Your task to perform on an android device: stop showing notifications on the lock screen Image 0: 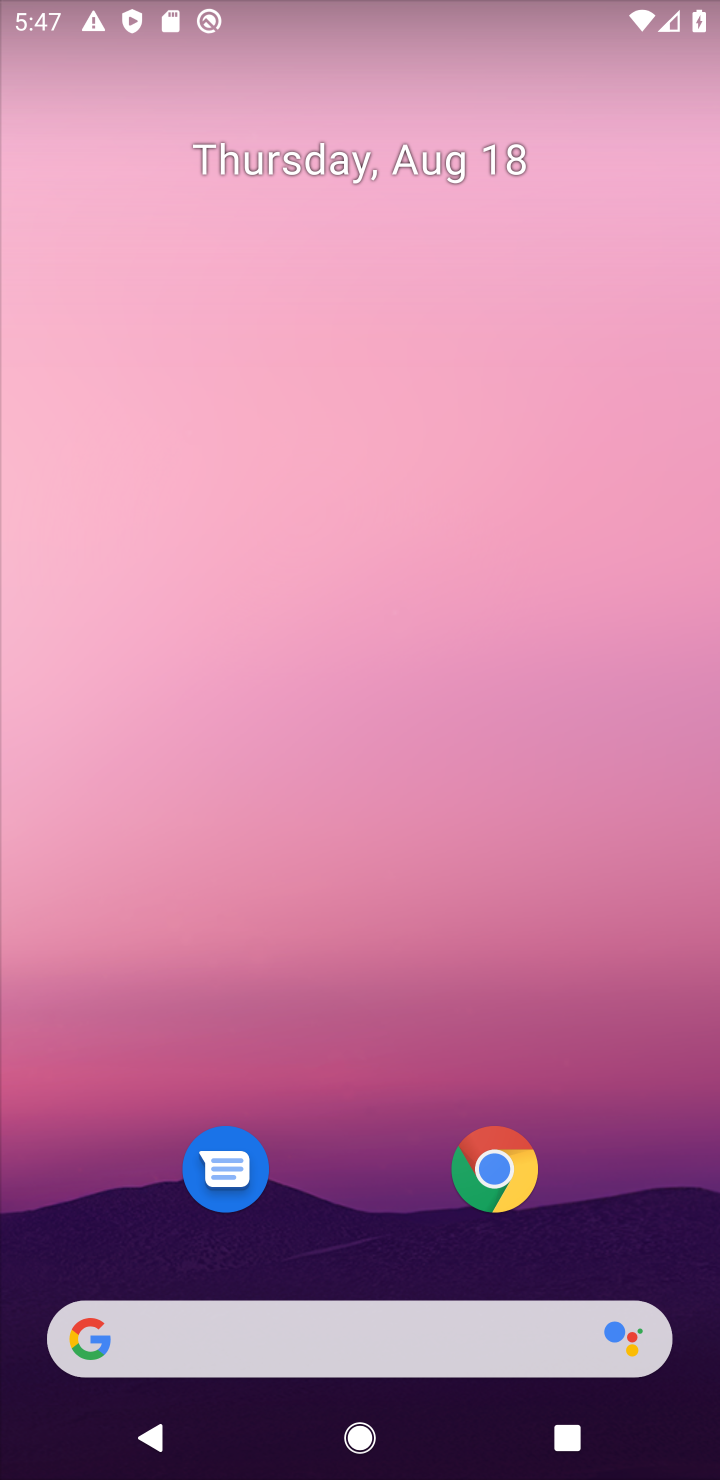
Step 0: press home button
Your task to perform on an android device: stop showing notifications on the lock screen Image 1: 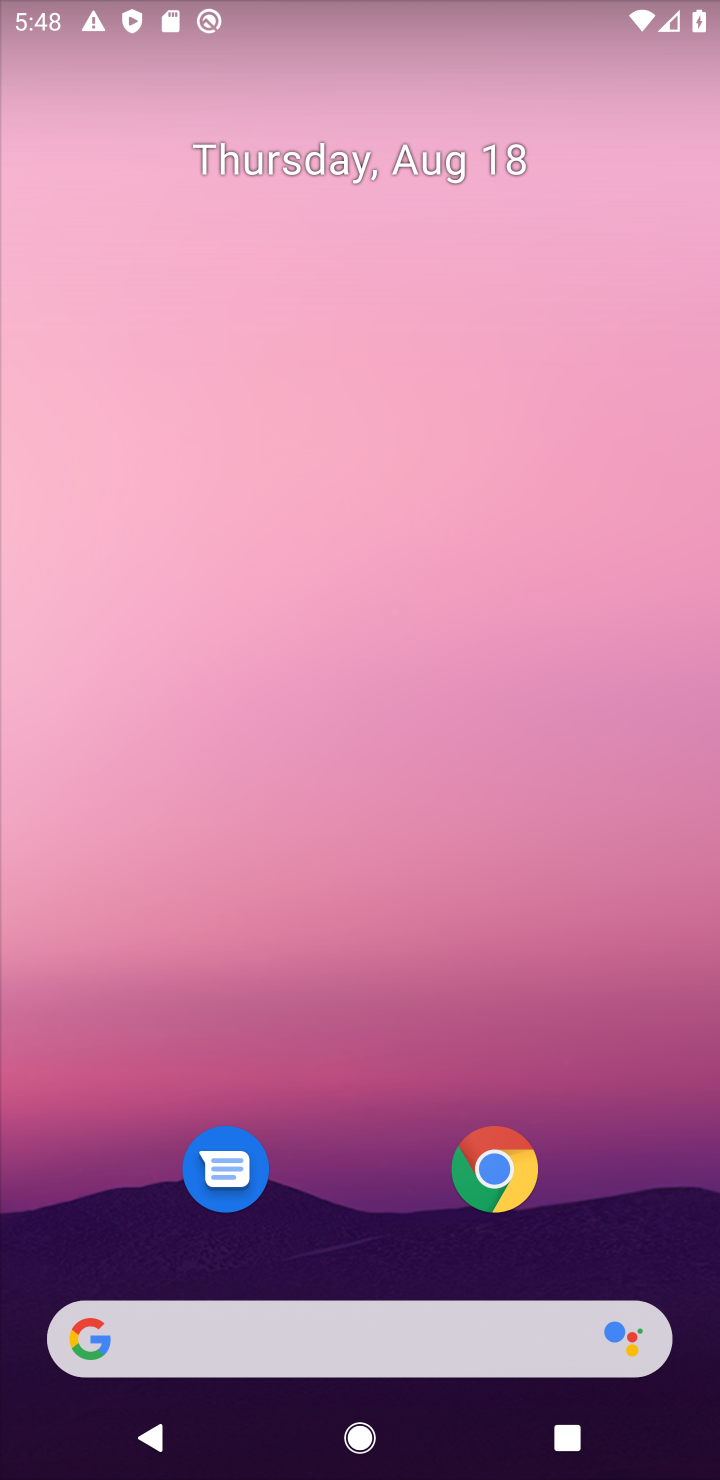
Step 1: drag from (364, 1153) to (335, 146)
Your task to perform on an android device: stop showing notifications on the lock screen Image 2: 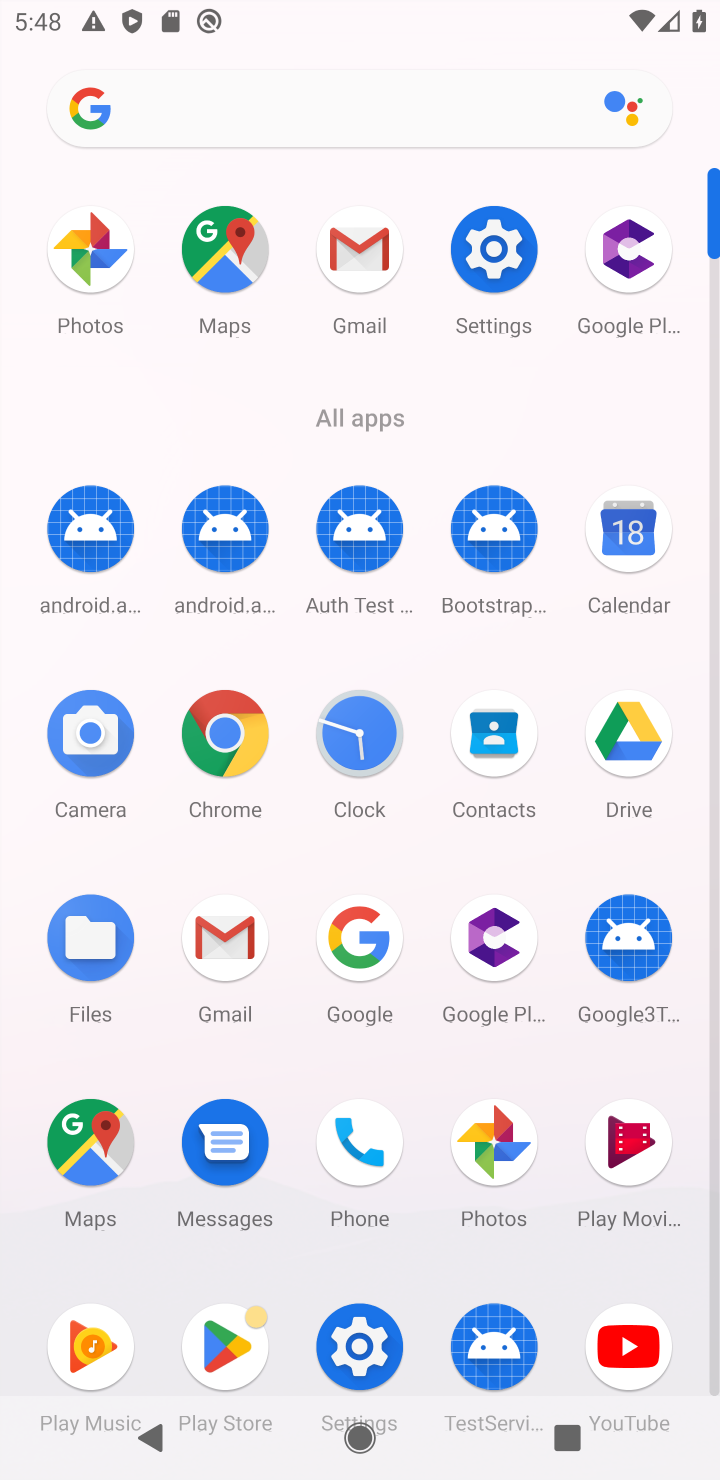
Step 2: click (484, 261)
Your task to perform on an android device: stop showing notifications on the lock screen Image 3: 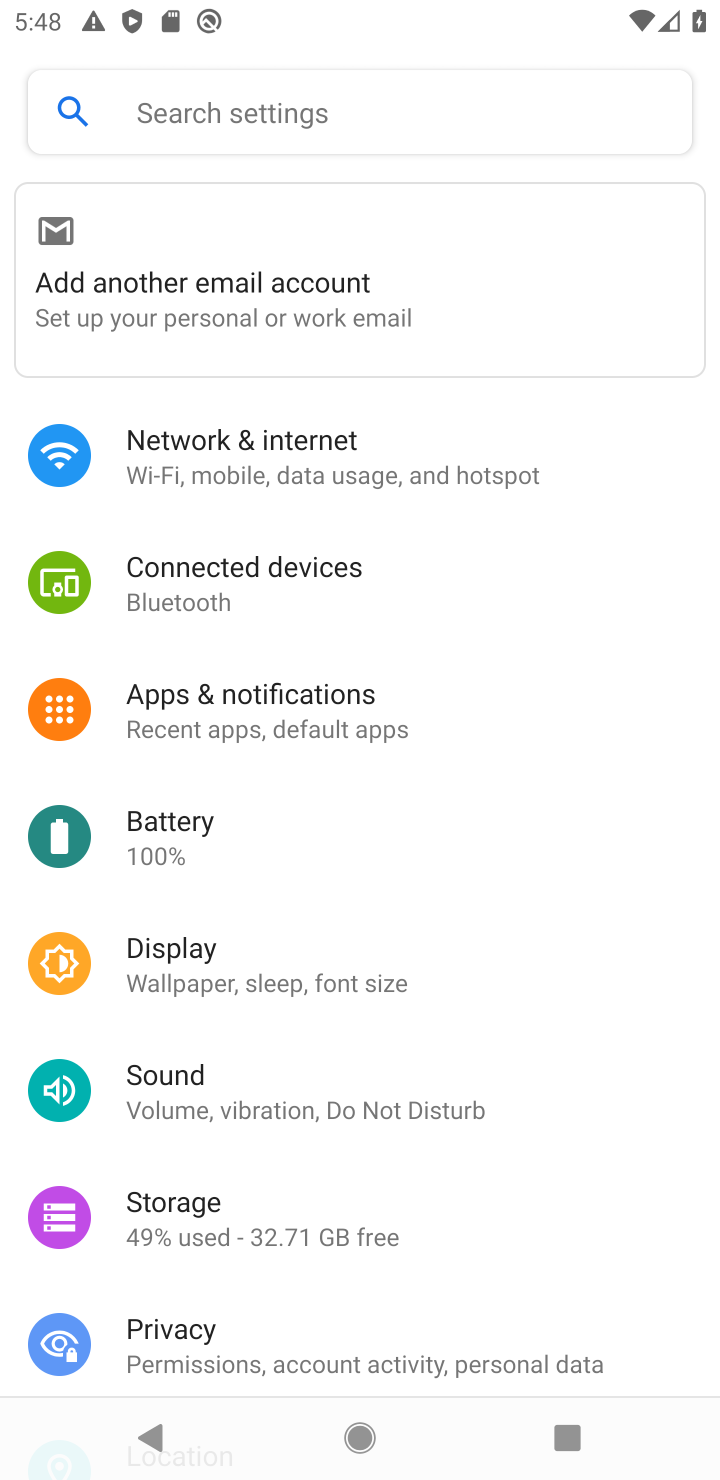
Step 3: click (291, 704)
Your task to perform on an android device: stop showing notifications on the lock screen Image 4: 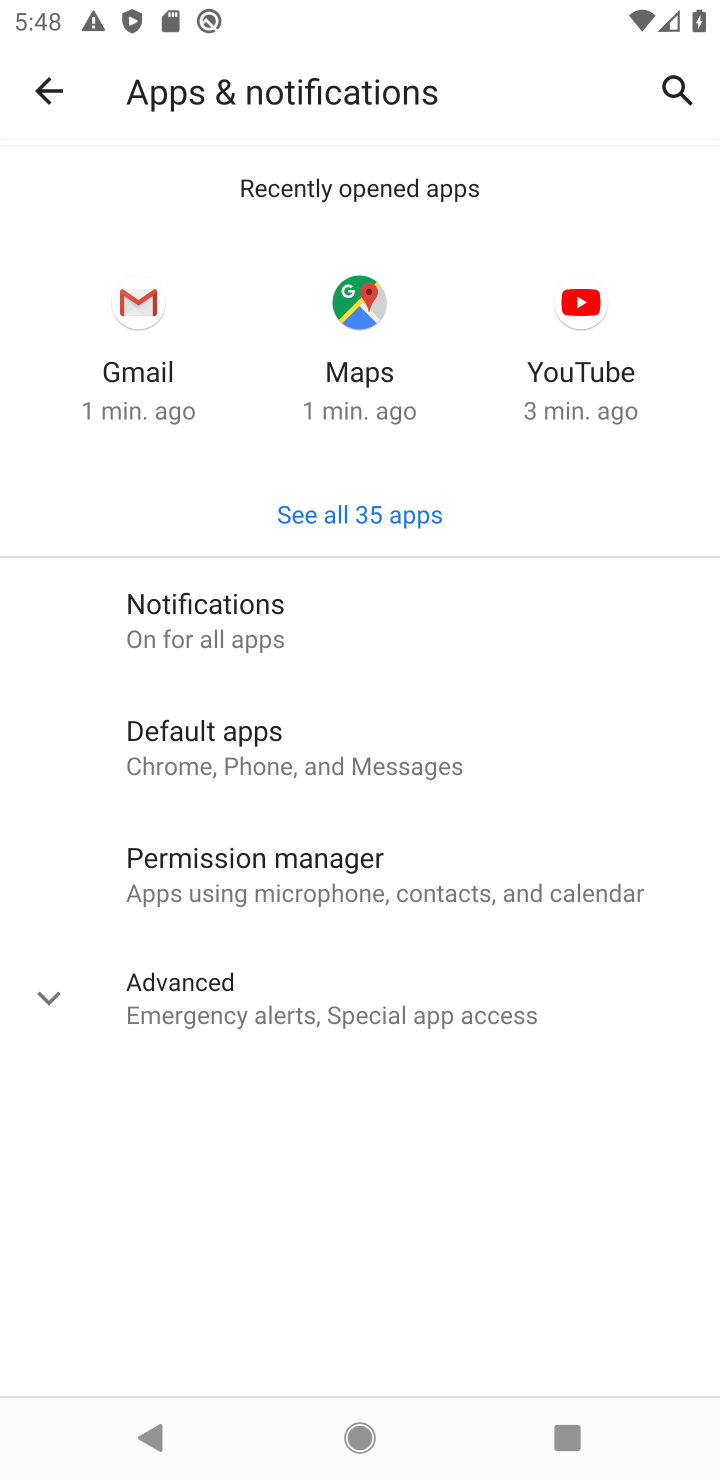
Step 4: click (221, 627)
Your task to perform on an android device: stop showing notifications on the lock screen Image 5: 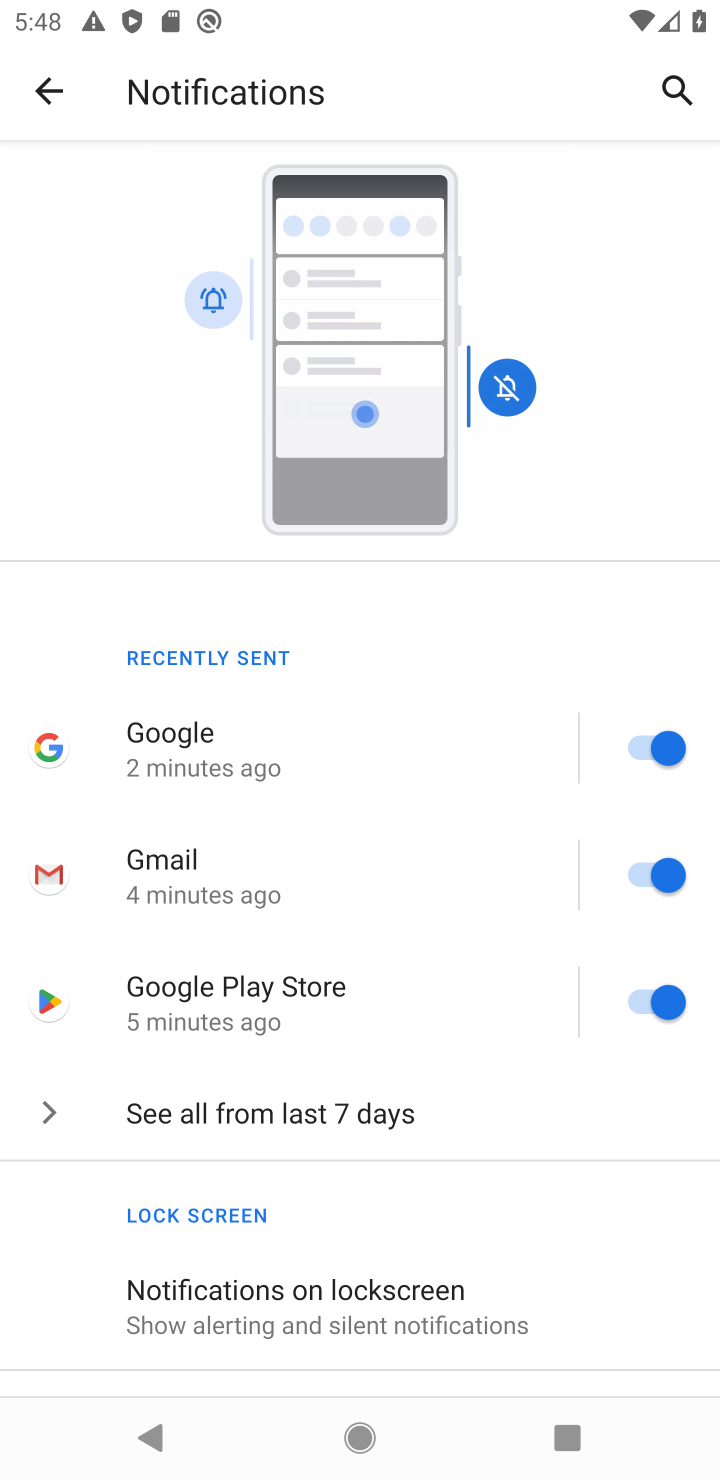
Step 5: drag from (530, 949) to (522, 817)
Your task to perform on an android device: stop showing notifications on the lock screen Image 6: 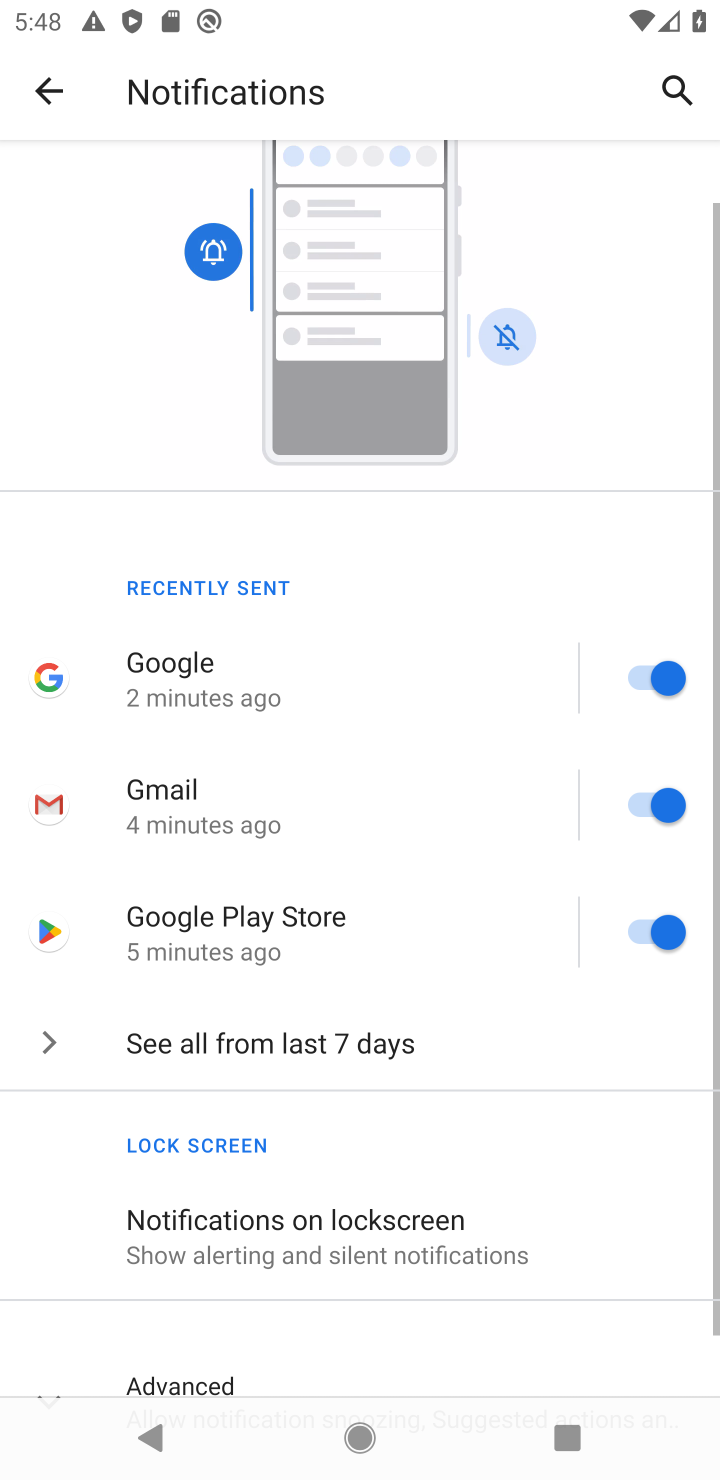
Step 6: click (269, 1248)
Your task to perform on an android device: stop showing notifications on the lock screen Image 7: 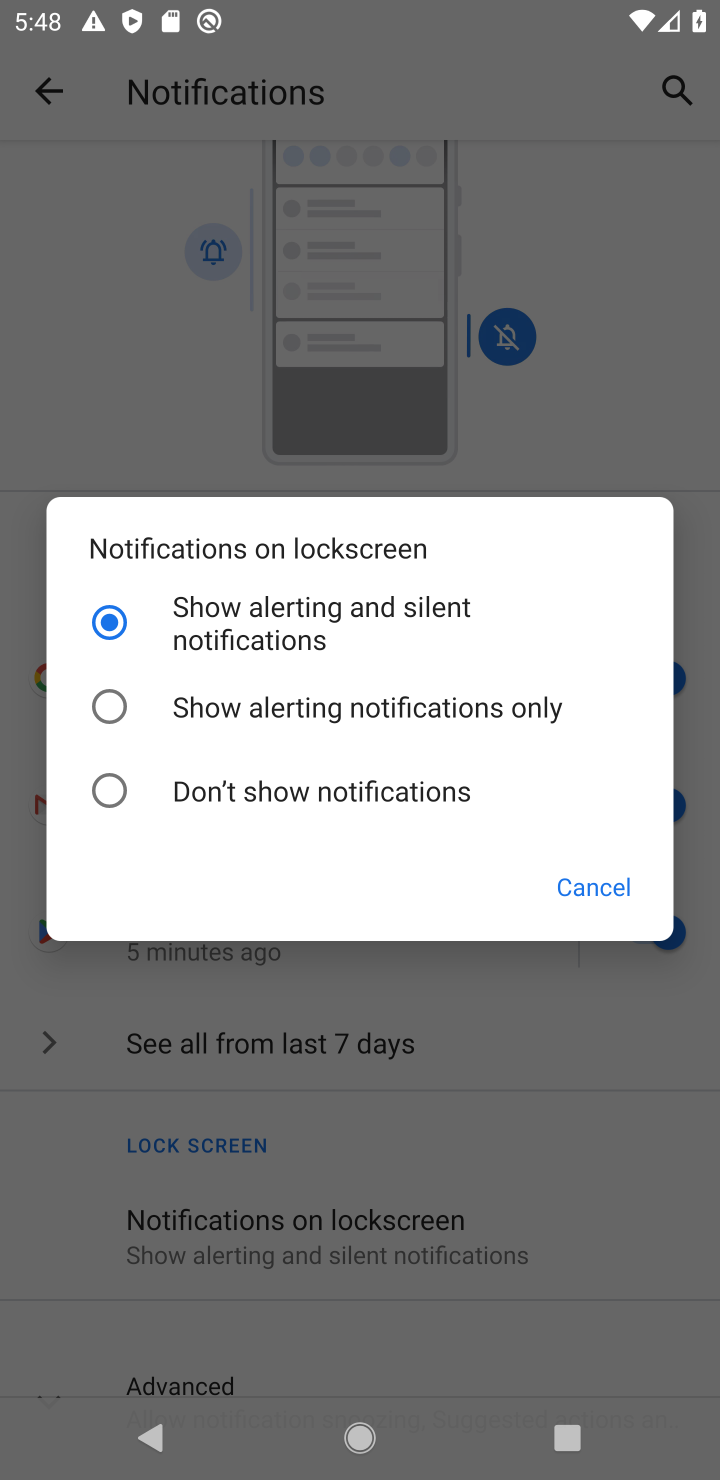
Step 7: click (96, 804)
Your task to perform on an android device: stop showing notifications on the lock screen Image 8: 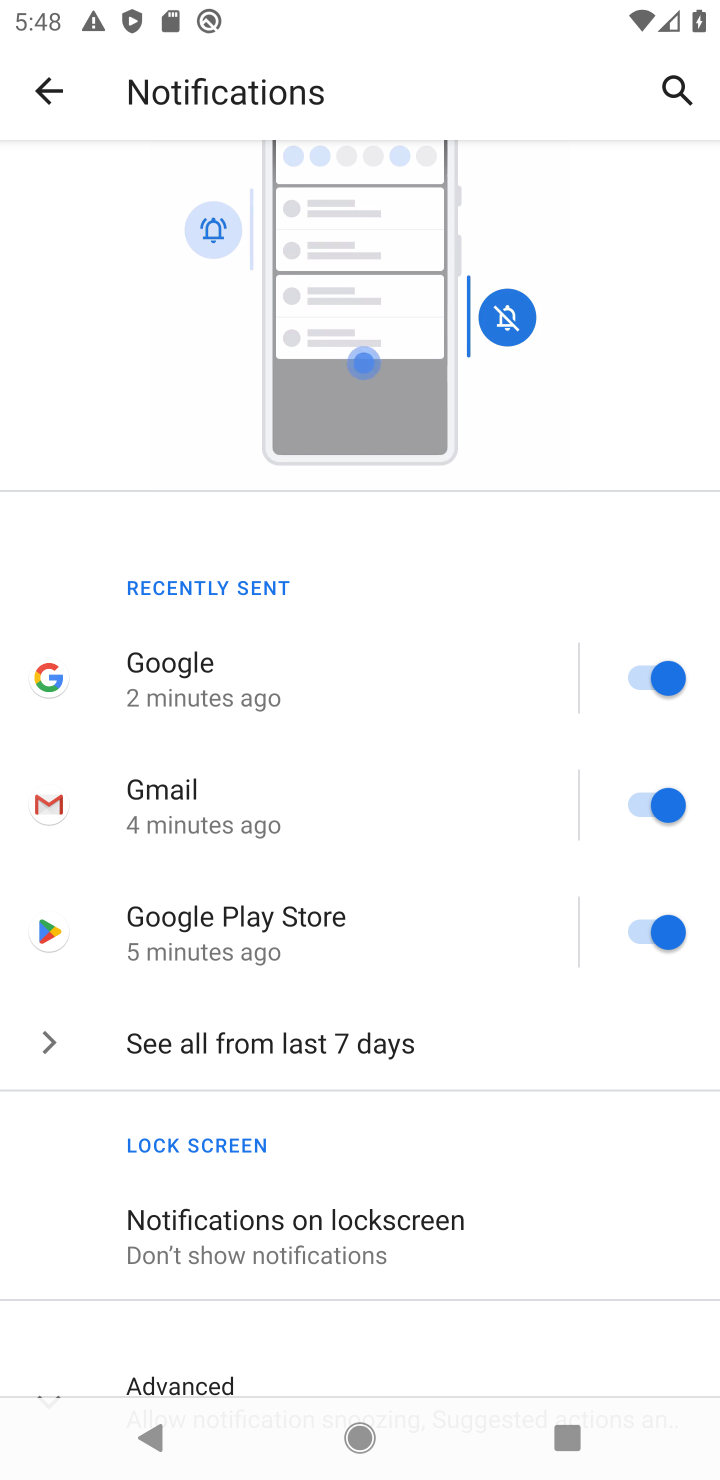
Step 8: task complete